Your task to perform on an android device: Toggle the flashlight Image 0: 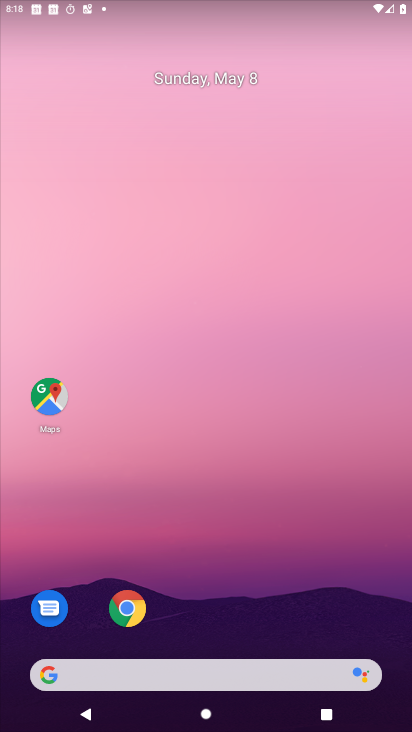
Step 0: drag from (252, 590) to (239, 99)
Your task to perform on an android device: Toggle the flashlight Image 1: 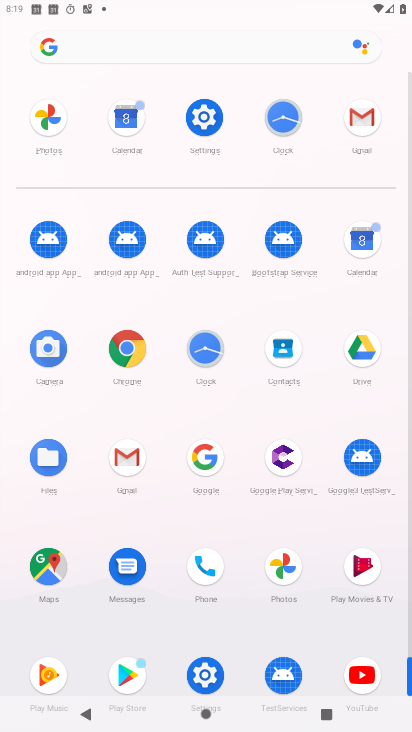
Step 1: click (209, 127)
Your task to perform on an android device: Toggle the flashlight Image 2: 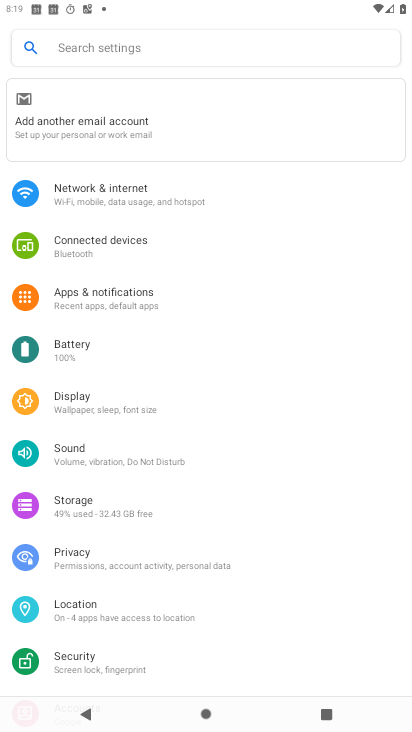
Step 2: click (194, 43)
Your task to perform on an android device: Toggle the flashlight Image 3: 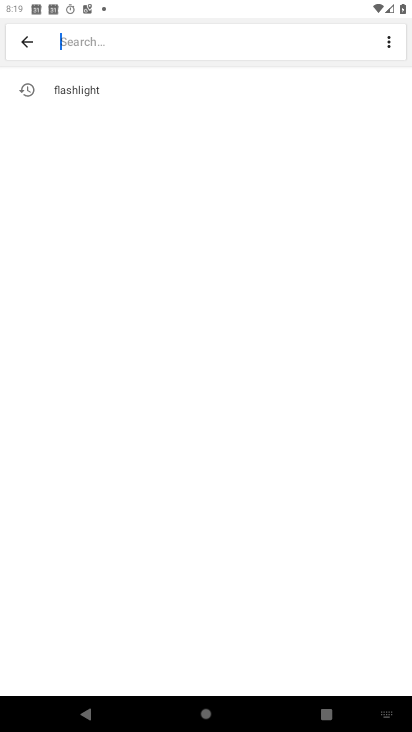
Step 3: click (90, 90)
Your task to perform on an android device: Toggle the flashlight Image 4: 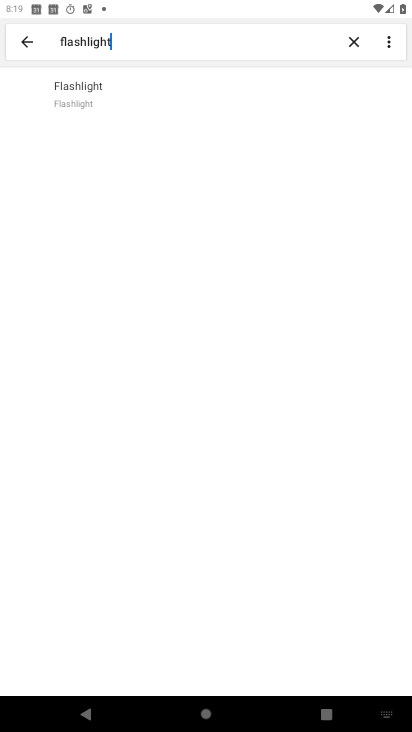
Step 4: click (105, 90)
Your task to perform on an android device: Toggle the flashlight Image 5: 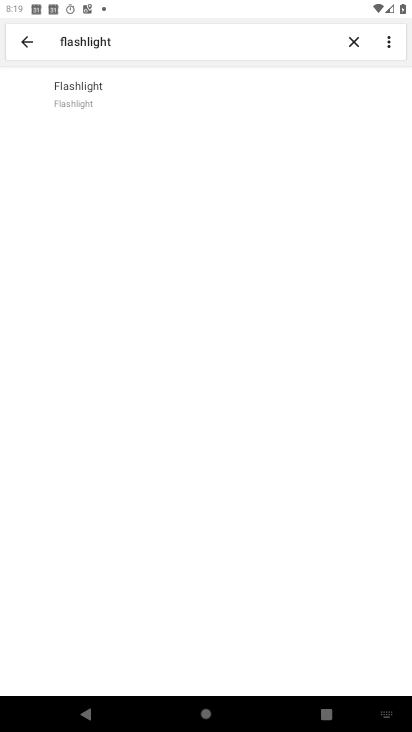
Step 5: task complete